Your task to perform on an android device: change the upload size in google photos Image 0: 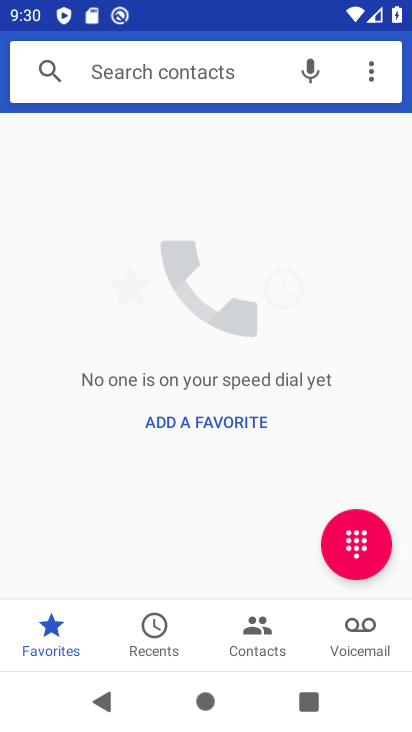
Step 0: press home button
Your task to perform on an android device: change the upload size in google photos Image 1: 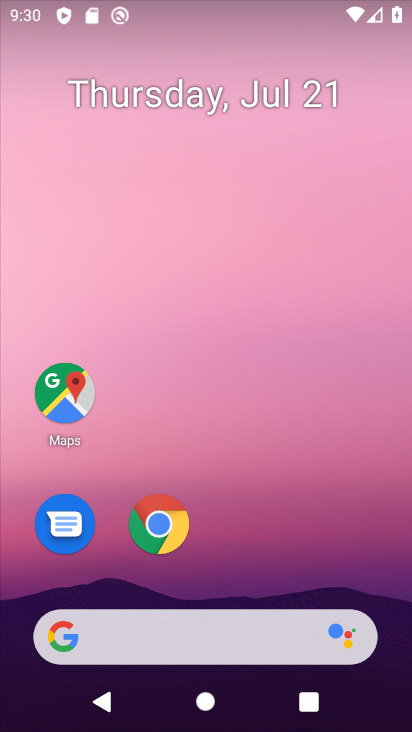
Step 1: drag from (183, 638) to (244, 154)
Your task to perform on an android device: change the upload size in google photos Image 2: 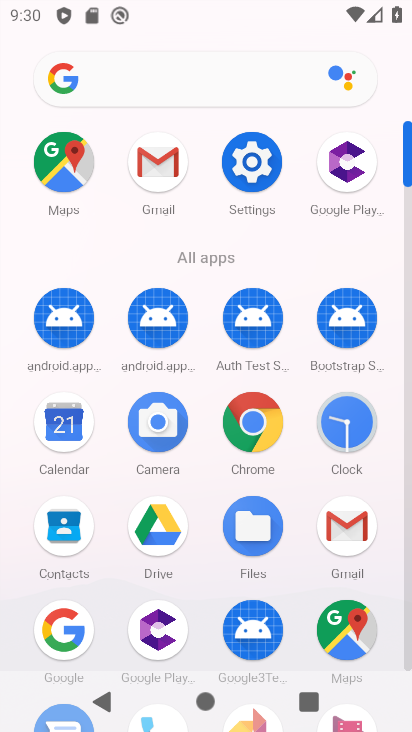
Step 2: drag from (200, 558) to (220, 164)
Your task to perform on an android device: change the upload size in google photos Image 3: 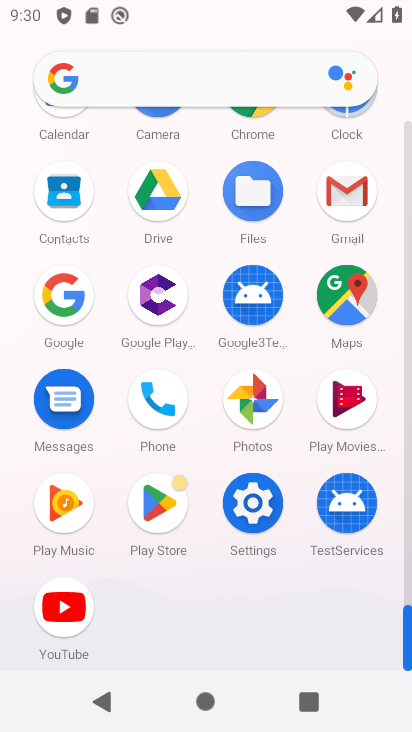
Step 3: click (256, 406)
Your task to perform on an android device: change the upload size in google photos Image 4: 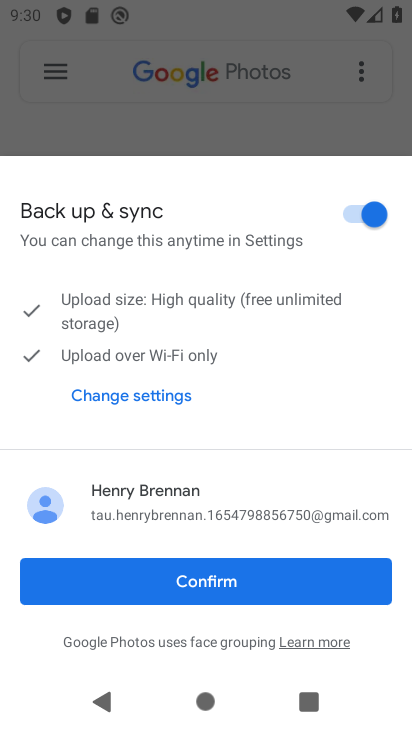
Step 4: click (193, 572)
Your task to perform on an android device: change the upload size in google photos Image 5: 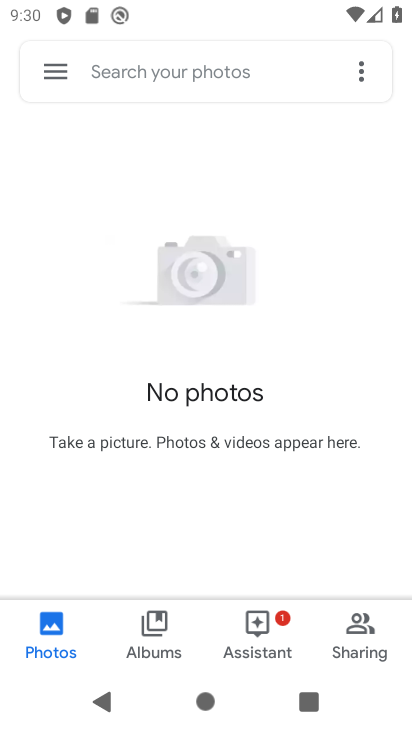
Step 5: click (57, 60)
Your task to perform on an android device: change the upload size in google photos Image 6: 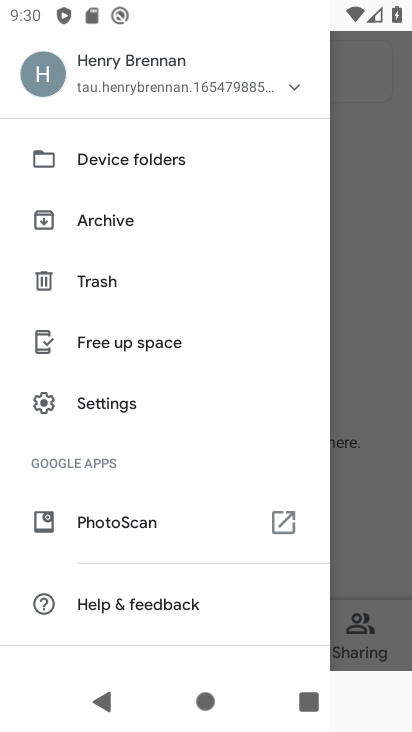
Step 6: drag from (144, 571) to (254, 144)
Your task to perform on an android device: change the upload size in google photos Image 7: 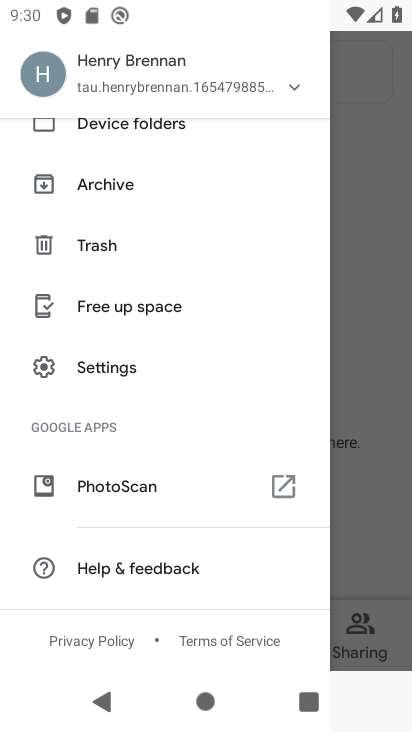
Step 7: click (103, 369)
Your task to perform on an android device: change the upload size in google photos Image 8: 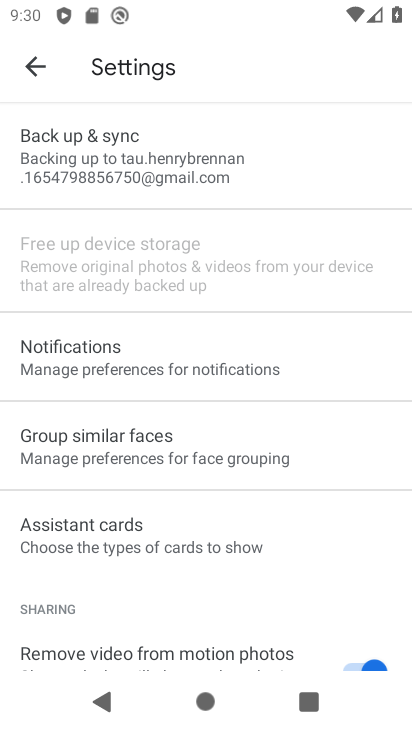
Step 8: click (175, 191)
Your task to perform on an android device: change the upload size in google photos Image 9: 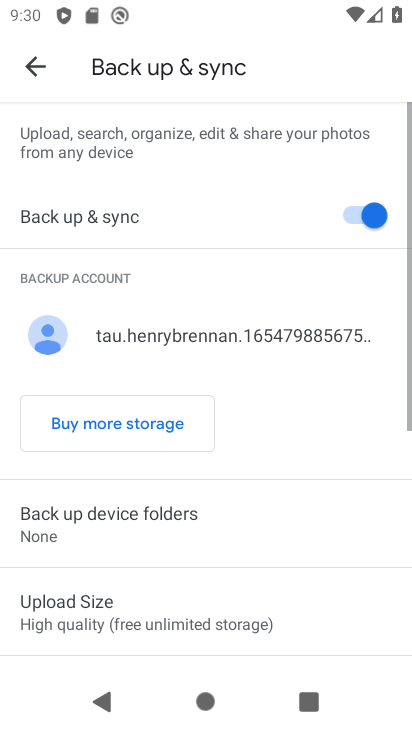
Step 9: drag from (211, 610) to (299, 205)
Your task to perform on an android device: change the upload size in google photos Image 10: 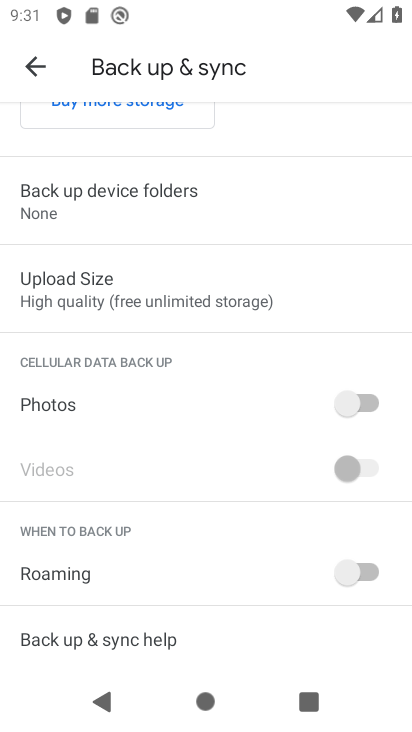
Step 10: click (106, 282)
Your task to perform on an android device: change the upload size in google photos Image 11: 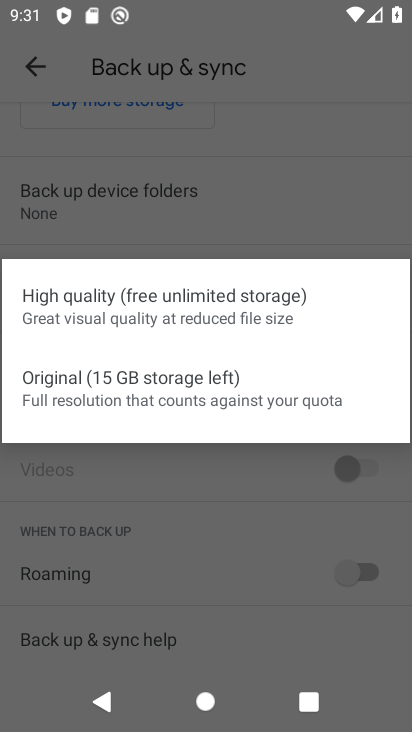
Step 11: click (60, 384)
Your task to perform on an android device: change the upload size in google photos Image 12: 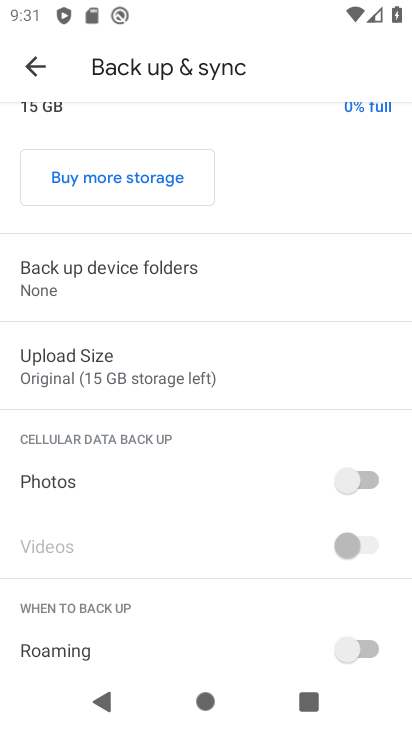
Step 12: task complete